Your task to perform on an android device: Open accessibility settings Image 0: 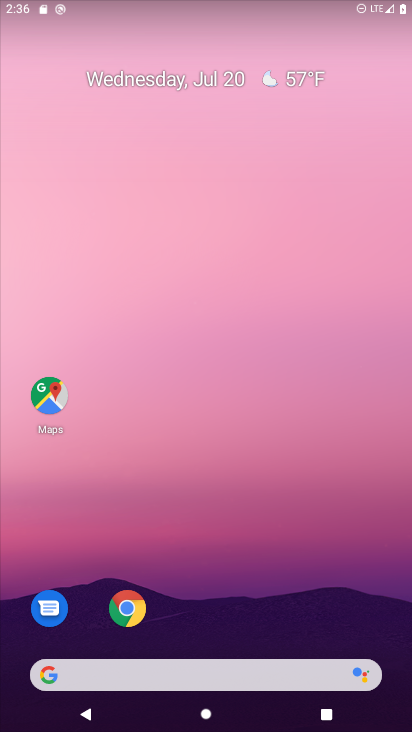
Step 0: drag from (236, 449) to (236, 203)
Your task to perform on an android device: Open accessibility settings Image 1: 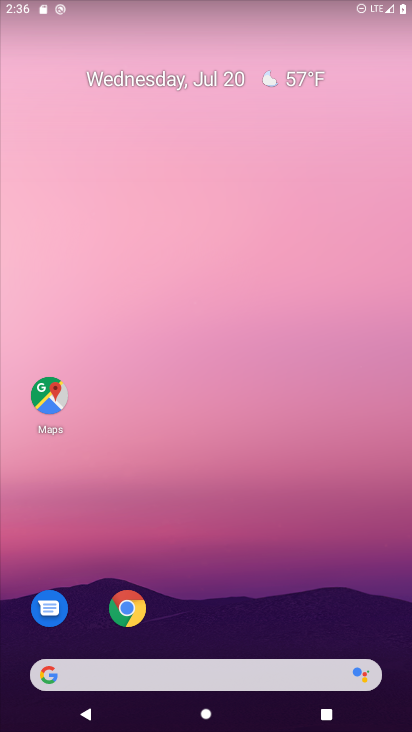
Step 1: drag from (275, 690) to (275, 90)
Your task to perform on an android device: Open accessibility settings Image 2: 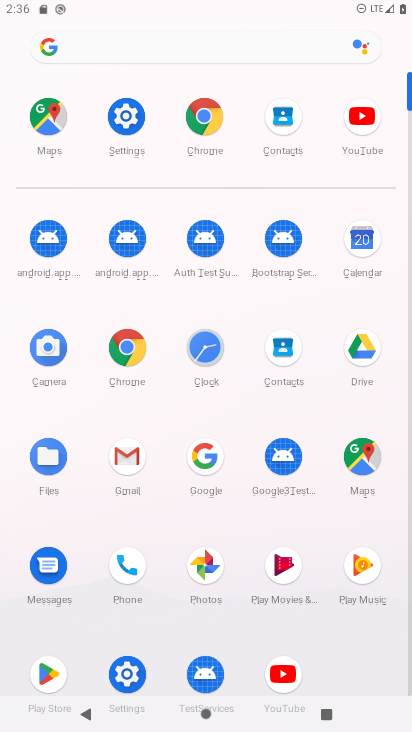
Step 2: click (121, 117)
Your task to perform on an android device: Open accessibility settings Image 3: 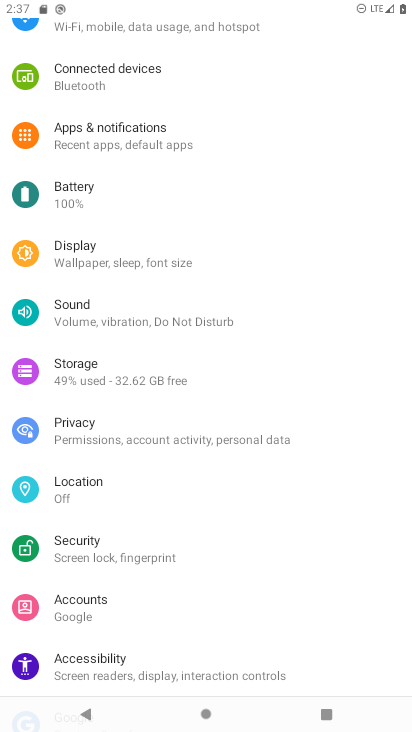
Step 3: click (100, 661)
Your task to perform on an android device: Open accessibility settings Image 4: 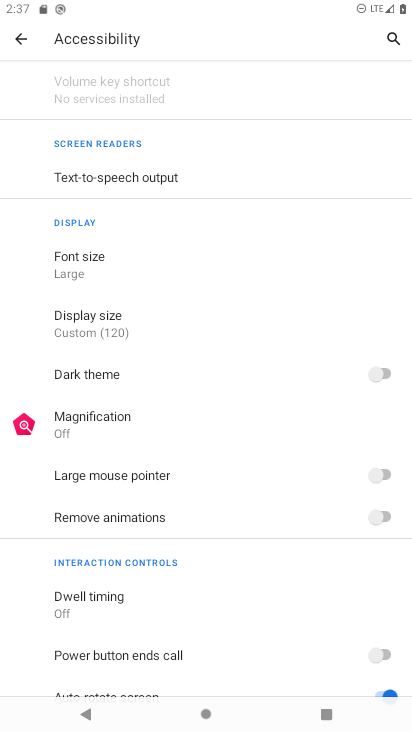
Step 4: task complete